Your task to perform on an android device: Toggle the flashlight Image 0: 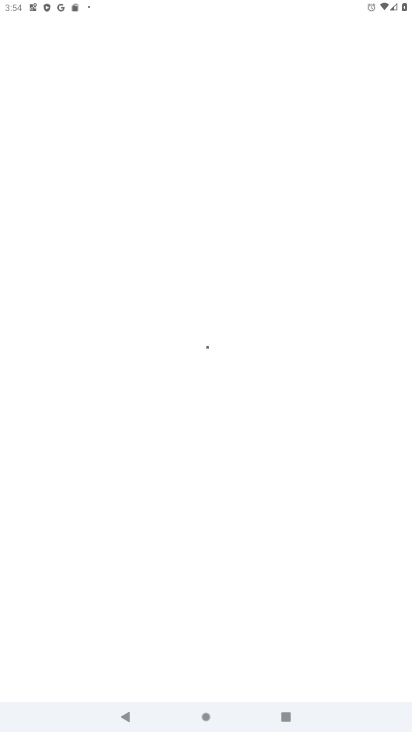
Step 0: press home button
Your task to perform on an android device: Toggle the flashlight Image 1: 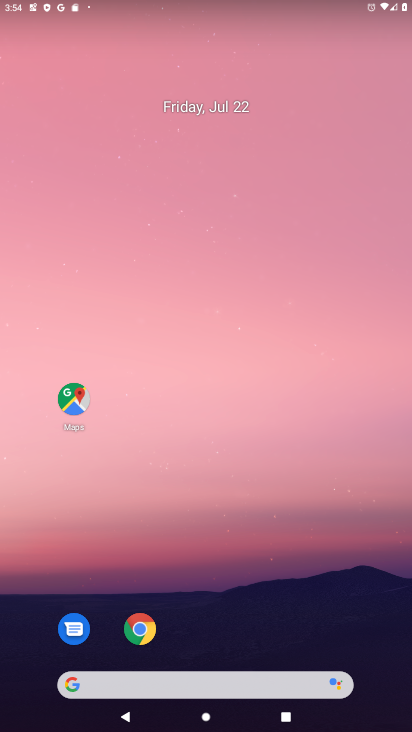
Step 1: task complete